Your task to perform on an android device: toggle javascript in the chrome app Image 0: 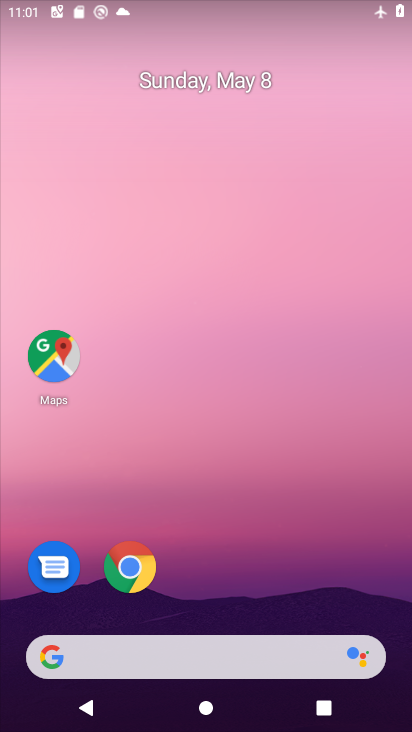
Step 0: click (129, 572)
Your task to perform on an android device: toggle javascript in the chrome app Image 1: 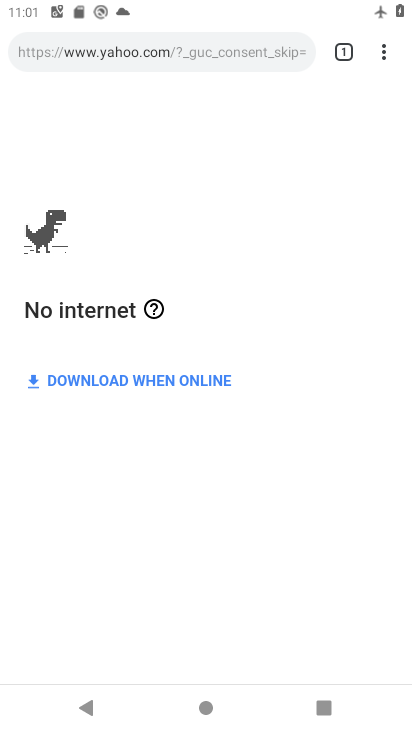
Step 1: click (380, 55)
Your task to perform on an android device: toggle javascript in the chrome app Image 2: 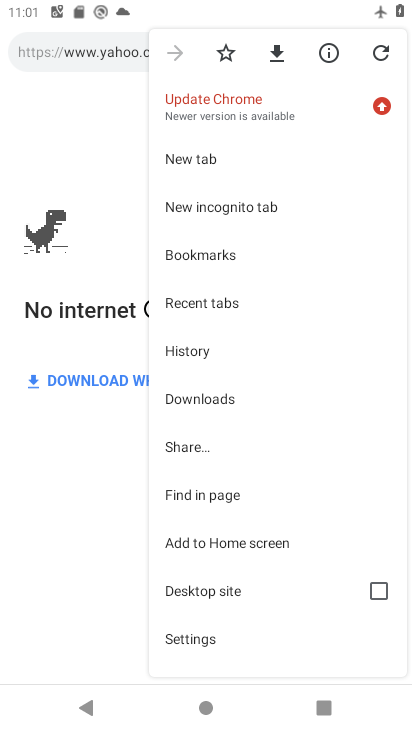
Step 2: drag from (230, 438) to (233, 231)
Your task to perform on an android device: toggle javascript in the chrome app Image 3: 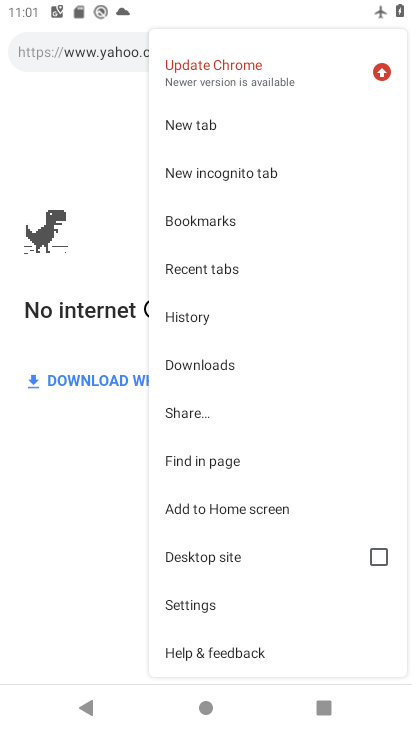
Step 3: click (188, 604)
Your task to perform on an android device: toggle javascript in the chrome app Image 4: 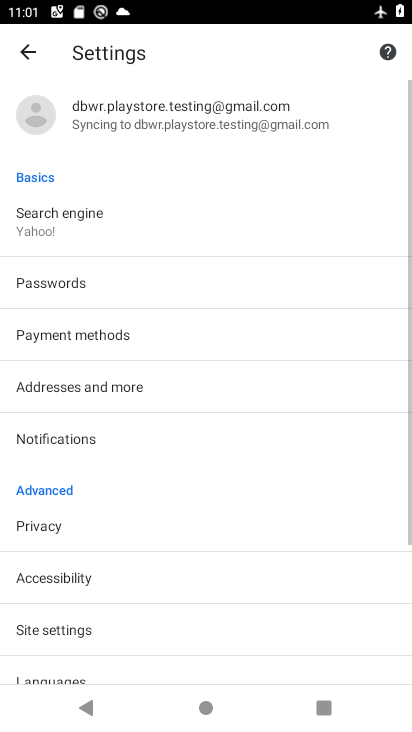
Step 4: drag from (186, 601) to (197, 514)
Your task to perform on an android device: toggle javascript in the chrome app Image 5: 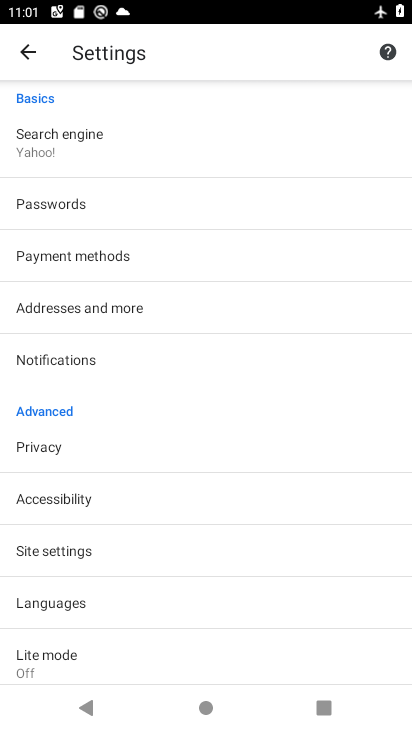
Step 5: drag from (220, 610) to (194, 340)
Your task to perform on an android device: toggle javascript in the chrome app Image 6: 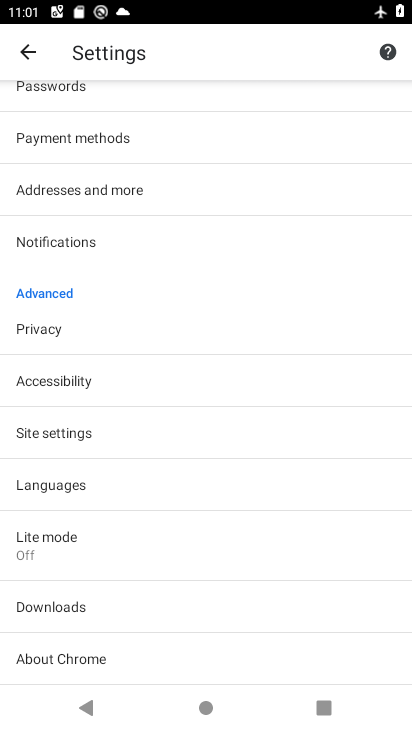
Step 6: click (62, 438)
Your task to perform on an android device: toggle javascript in the chrome app Image 7: 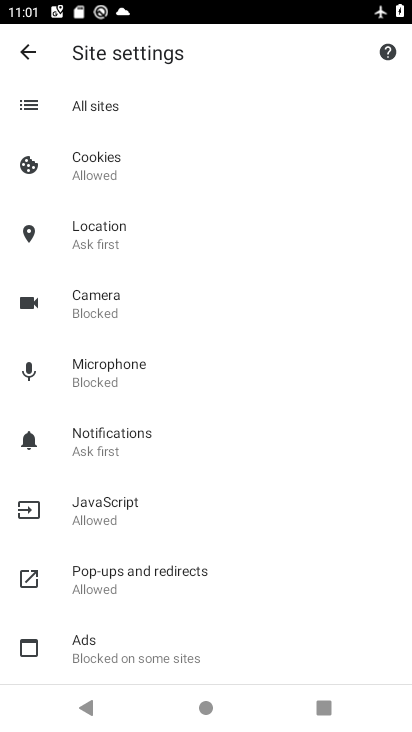
Step 7: click (121, 511)
Your task to perform on an android device: toggle javascript in the chrome app Image 8: 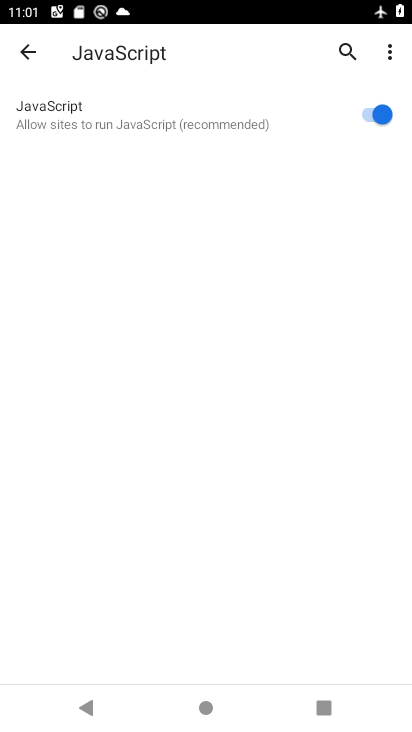
Step 8: click (375, 122)
Your task to perform on an android device: toggle javascript in the chrome app Image 9: 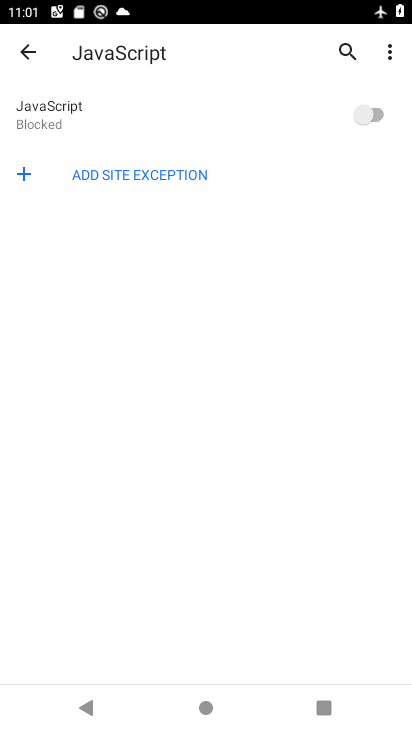
Step 9: task complete